Your task to perform on an android device: make emails show in primary in the gmail app Image 0: 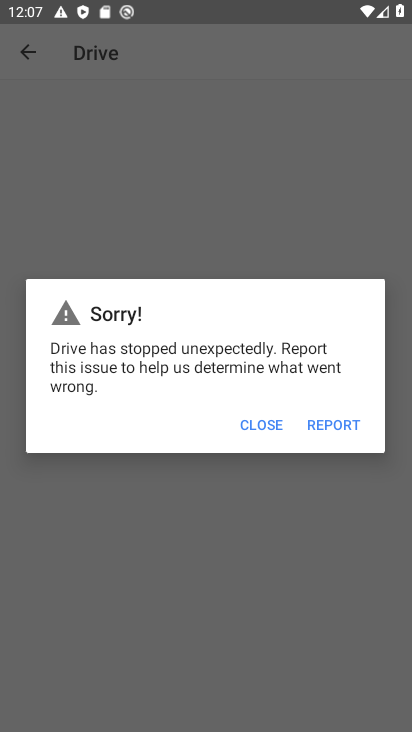
Step 0: press home button
Your task to perform on an android device: make emails show in primary in the gmail app Image 1: 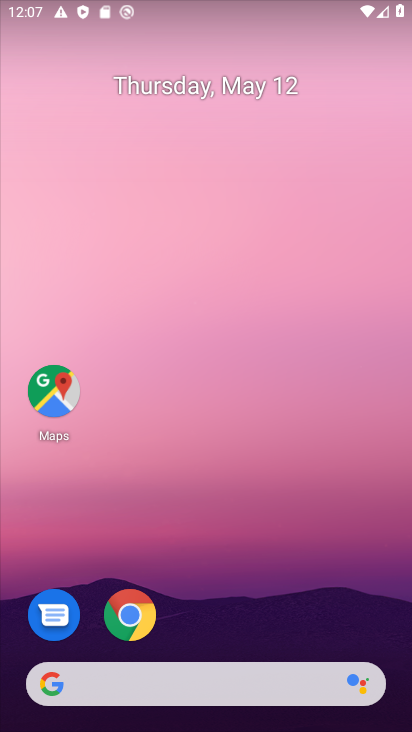
Step 1: drag from (274, 503) to (357, 262)
Your task to perform on an android device: make emails show in primary in the gmail app Image 2: 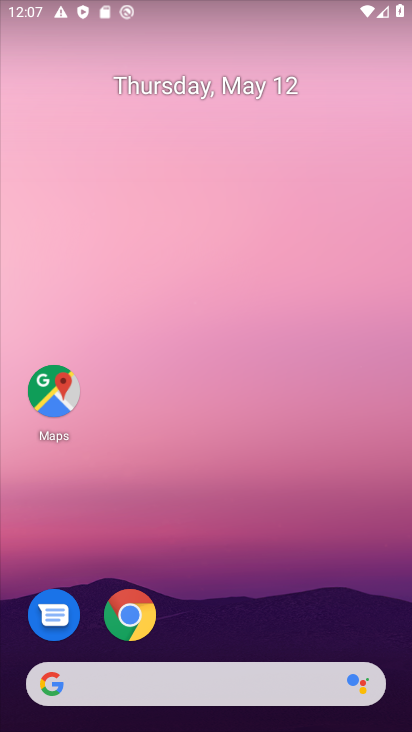
Step 2: drag from (224, 720) to (354, 175)
Your task to perform on an android device: make emails show in primary in the gmail app Image 3: 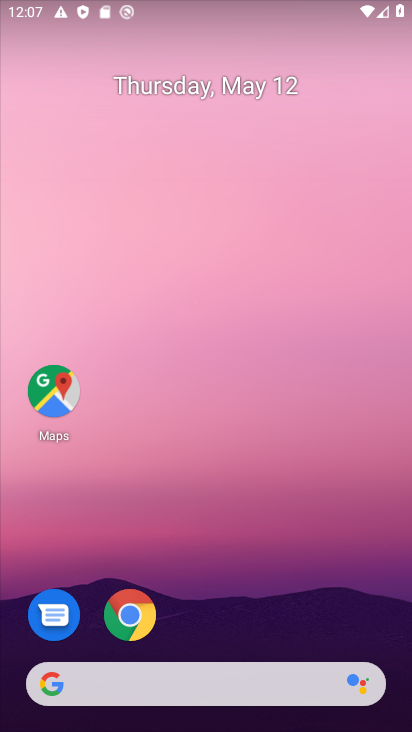
Step 3: drag from (256, 701) to (245, 260)
Your task to perform on an android device: make emails show in primary in the gmail app Image 4: 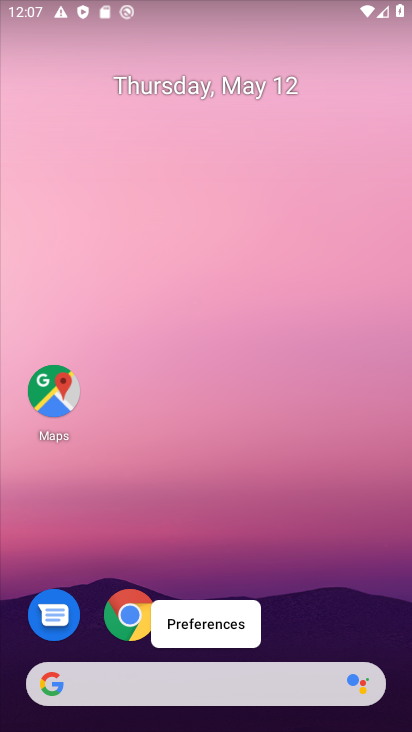
Step 4: drag from (275, 714) to (346, 309)
Your task to perform on an android device: make emails show in primary in the gmail app Image 5: 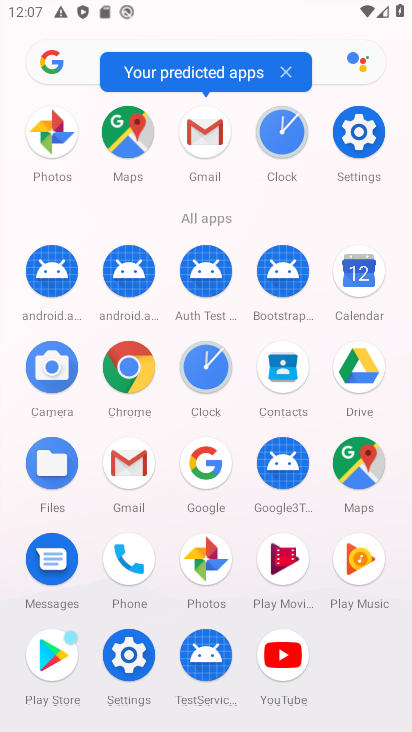
Step 5: click (208, 130)
Your task to perform on an android device: make emails show in primary in the gmail app Image 6: 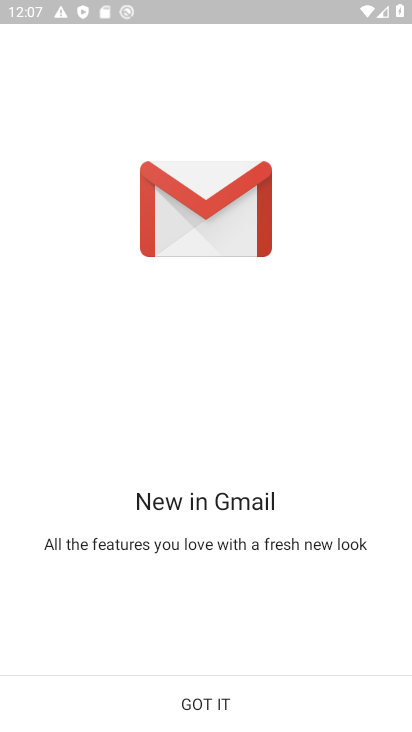
Step 6: click (204, 696)
Your task to perform on an android device: make emails show in primary in the gmail app Image 7: 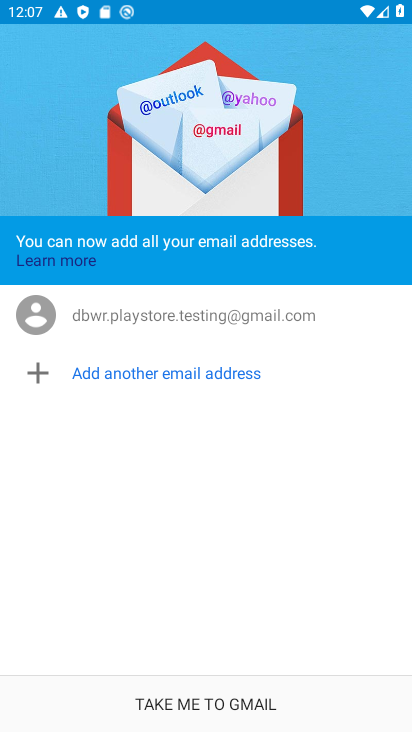
Step 7: click (209, 696)
Your task to perform on an android device: make emails show in primary in the gmail app Image 8: 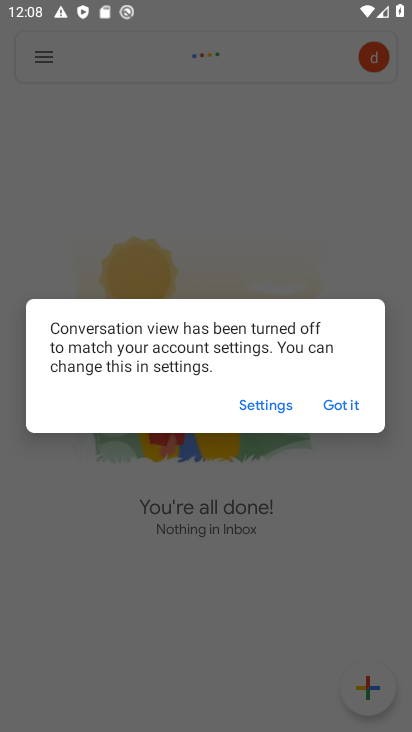
Step 8: click (333, 404)
Your task to perform on an android device: make emails show in primary in the gmail app Image 9: 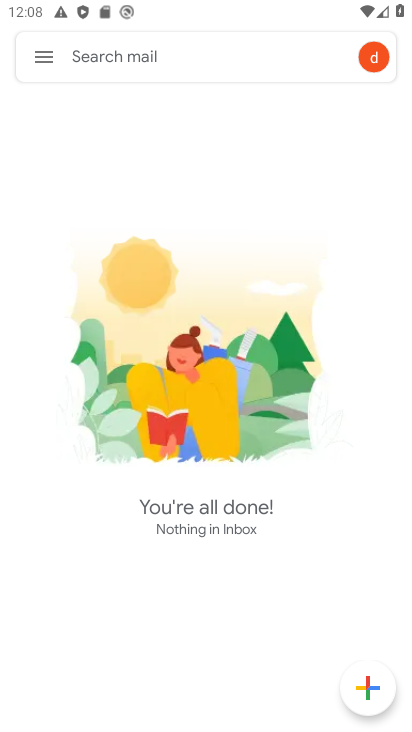
Step 9: click (29, 54)
Your task to perform on an android device: make emails show in primary in the gmail app Image 10: 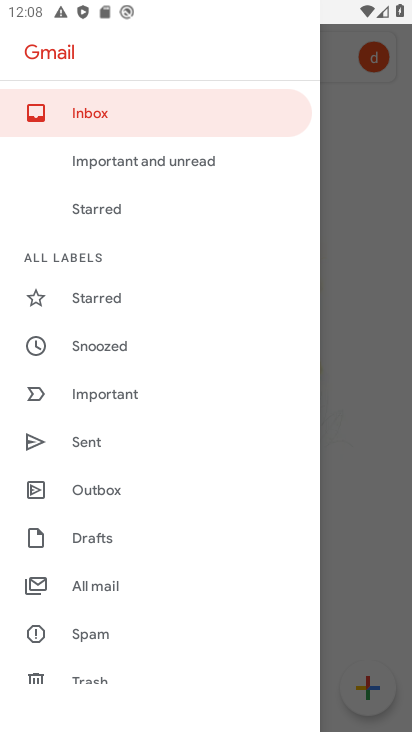
Step 10: drag from (114, 641) to (240, 352)
Your task to perform on an android device: make emails show in primary in the gmail app Image 11: 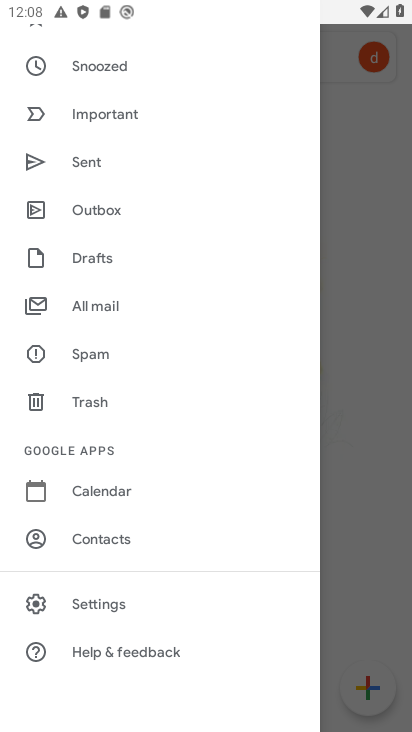
Step 11: click (80, 609)
Your task to perform on an android device: make emails show in primary in the gmail app Image 12: 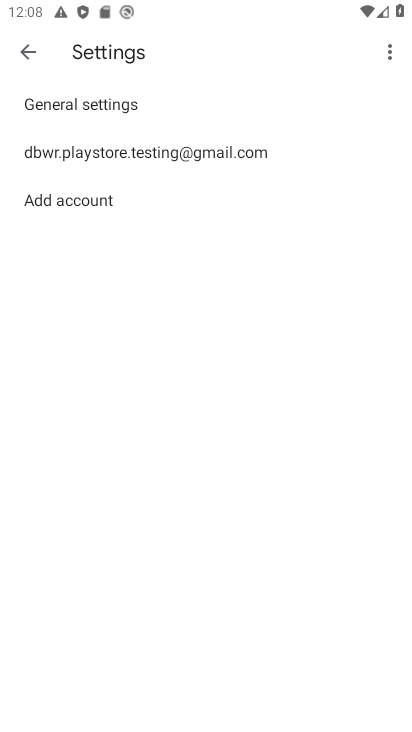
Step 12: click (164, 153)
Your task to perform on an android device: make emails show in primary in the gmail app Image 13: 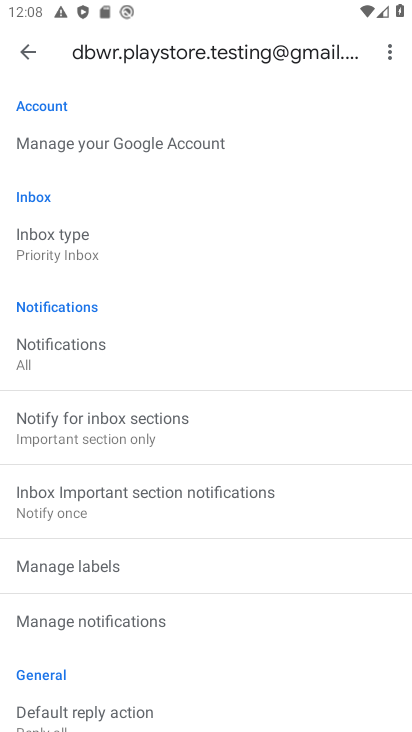
Step 13: click (73, 256)
Your task to perform on an android device: make emails show in primary in the gmail app Image 14: 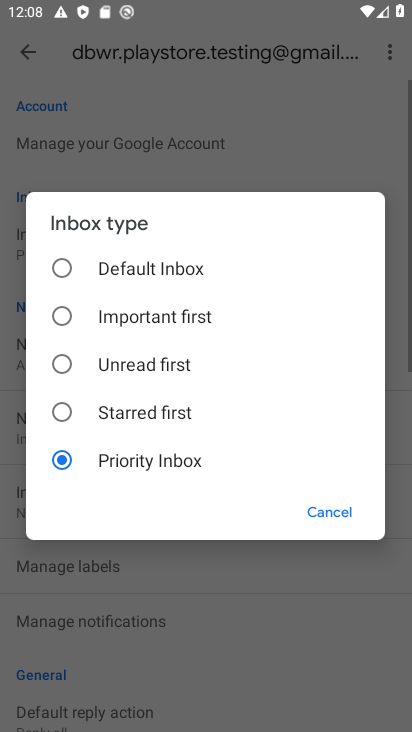
Step 14: click (109, 265)
Your task to perform on an android device: make emails show in primary in the gmail app Image 15: 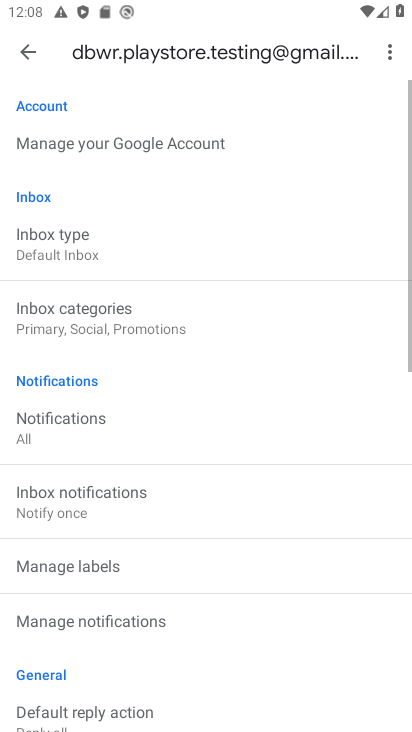
Step 15: click (93, 323)
Your task to perform on an android device: make emails show in primary in the gmail app Image 16: 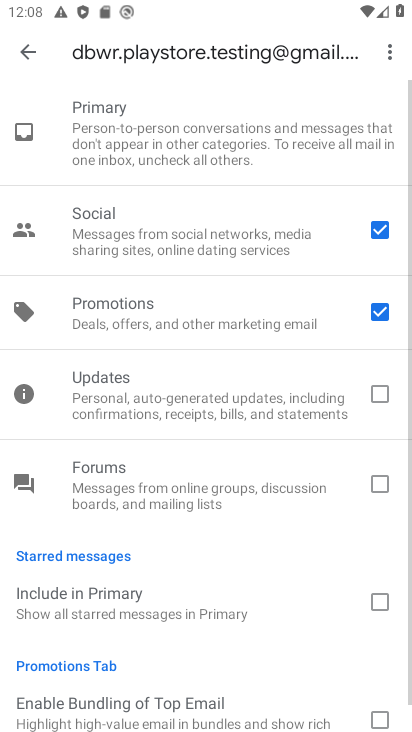
Step 16: click (382, 309)
Your task to perform on an android device: make emails show in primary in the gmail app Image 17: 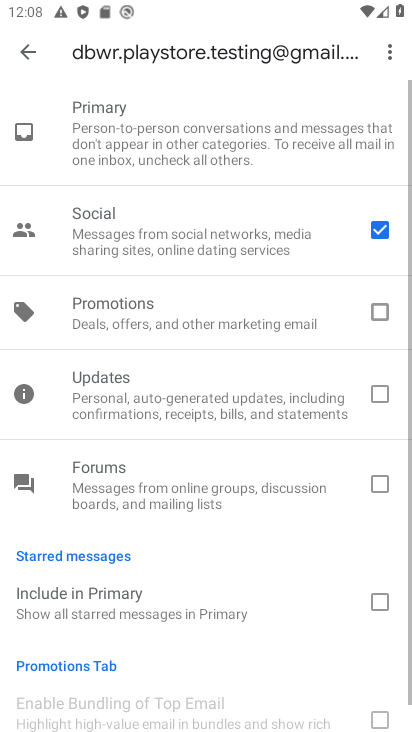
Step 17: click (355, 226)
Your task to perform on an android device: make emails show in primary in the gmail app Image 18: 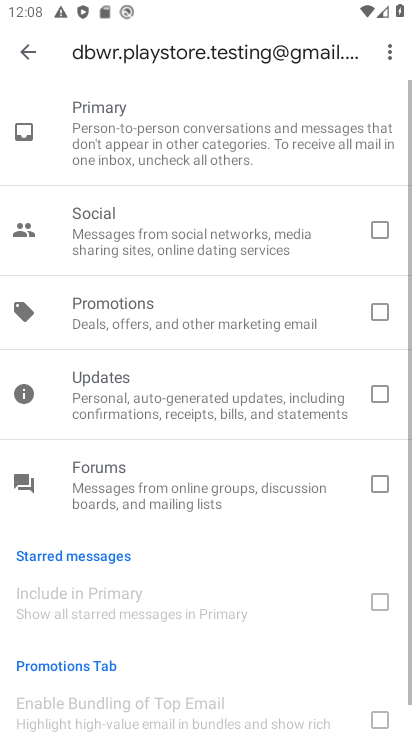
Step 18: click (214, 146)
Your task to perform on an android device: make emails show in primary in the gmail app Image 19: 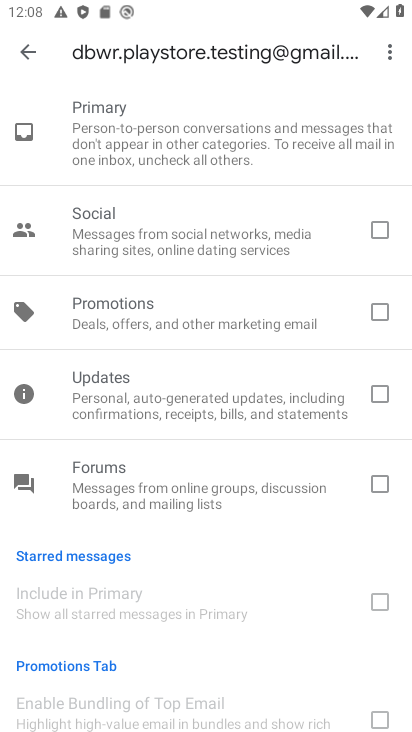
Step 19: task complete